Your task to perform on an android device: remove spam from my inbox in the gmail app Image 0: 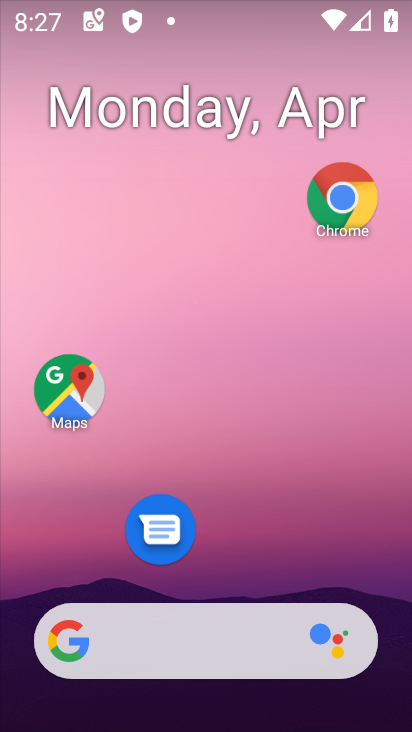
Step 0: click (289, 70)
Your task to perform on an android device: remove spam from my inbox in the gmail app Image 1: 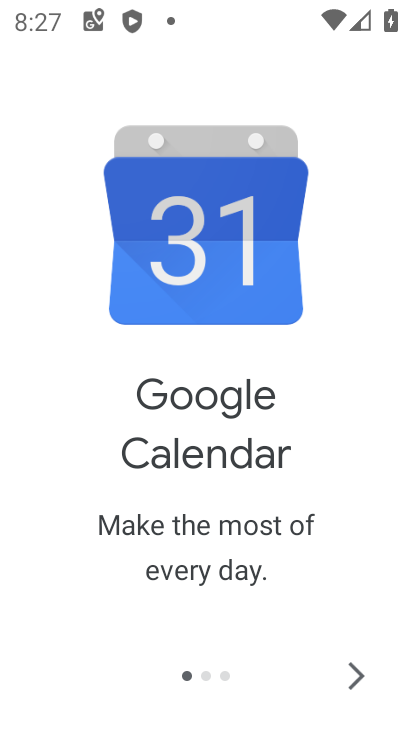
Step 1: press back button
Your task to perform on an android device: remove spam from my inbox in the gmail app Image 2: 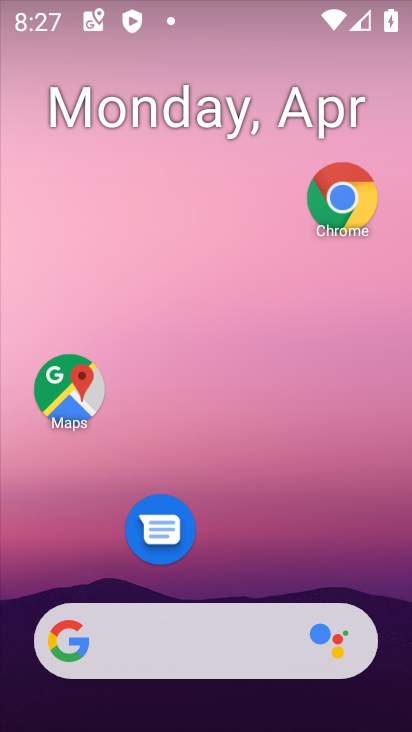
Step 2: drag from (209, 555) to (261, 56)
Your task to perform on an android device: remove spam from my inbox in the gmail app Image 3: 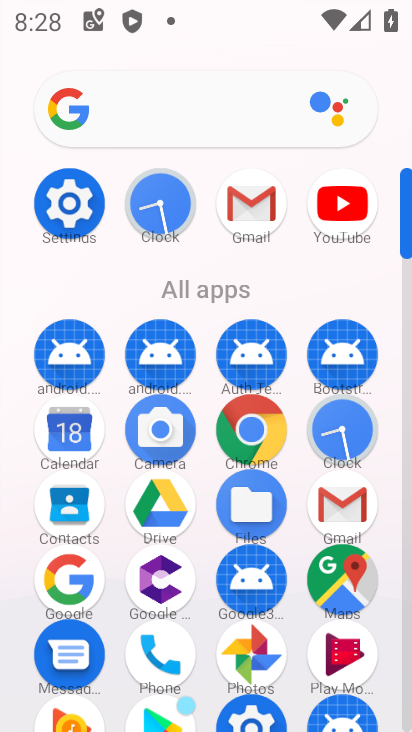
Step 3: click (246, 197)
Your task to perform on an android device: remove spam from my inbox in the gmail app Image 4: 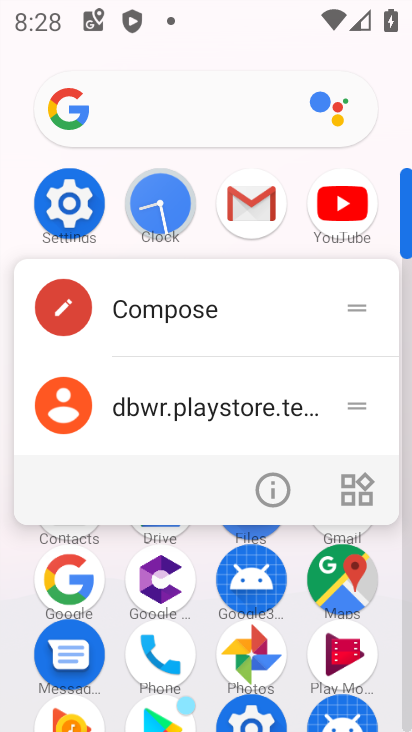
Step 4: click (268, 191)
Your task to perform on an android device: remove spam from my inbox in the gmail app Image 5: 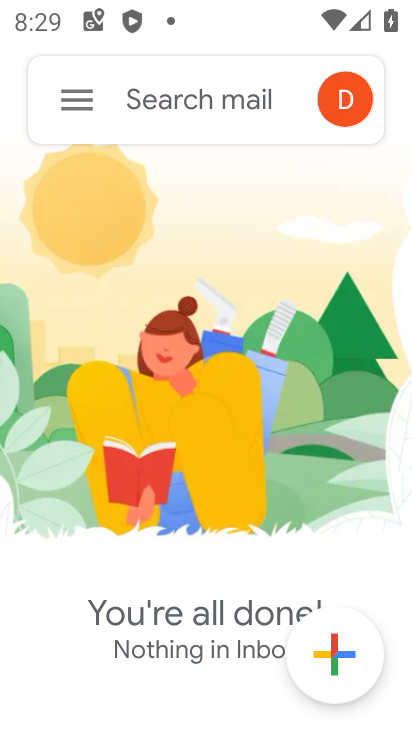
Step 5: click (67, 104)
Your task to perform on an android device: remove spam from my inbox in the gmail app Image 6: 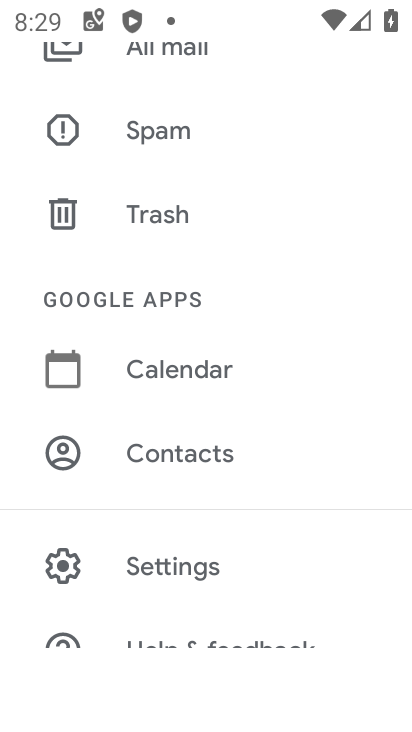
Step 6: click (155, 127)
Your task to perform on an android device: remove spam from my inbox in the gmail app Image 7: 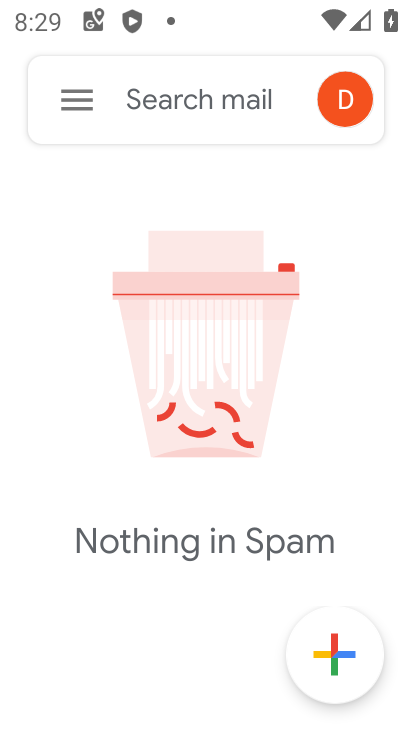
Step 7: task complete